Your task to perform on an android device: Open Reddit.com Image 0: 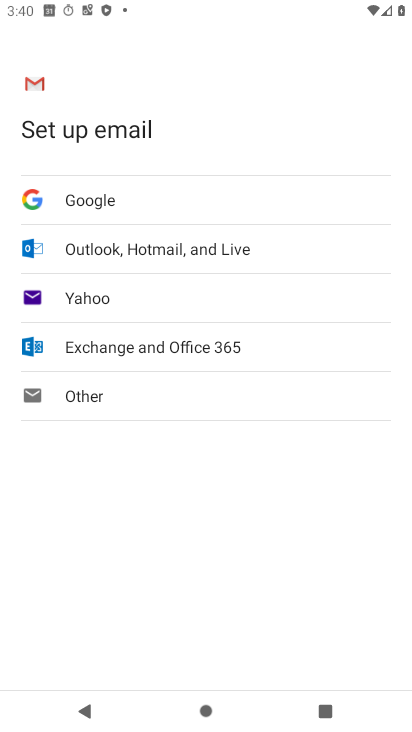
Step 0: press home button
Your task to perform on an android device: Open Reddit.com Image 1: 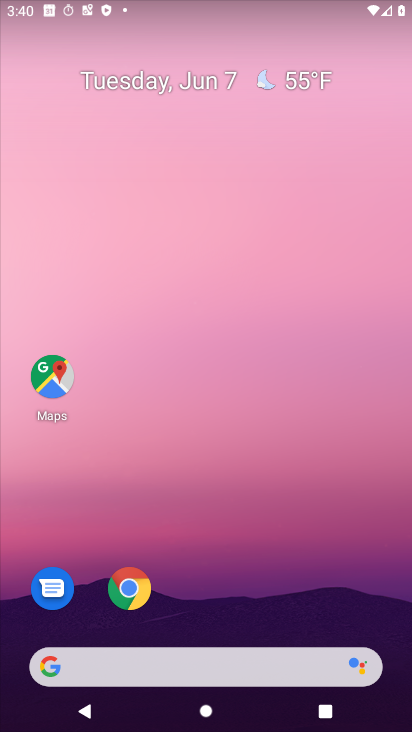
Step 1: click (58, 677)
Your task to perform on an android device: Open Reddit.com Image 2: 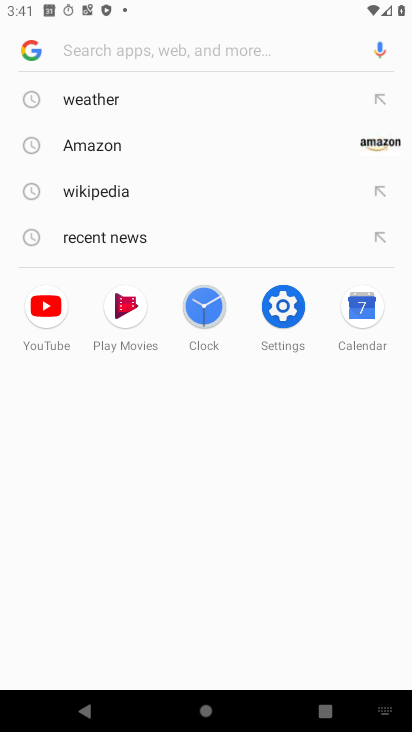
Step 2: type "Reddit.com"
Your task to perform on an android device: Open Reddit.com Image 3: 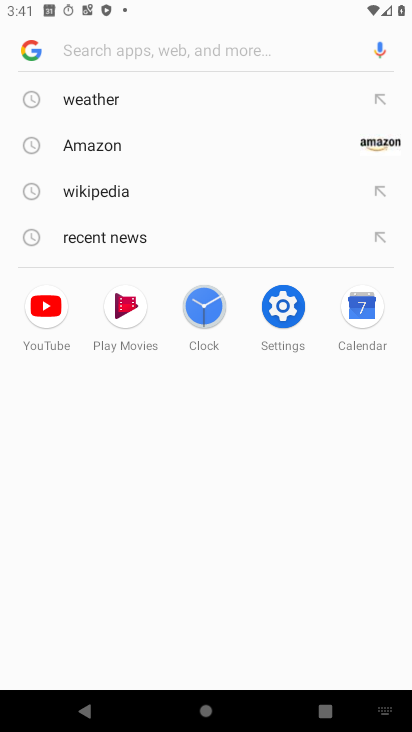
Step 3: click (160, 50)
Your task to perform on an android device: Open Reddit.com Image 4: 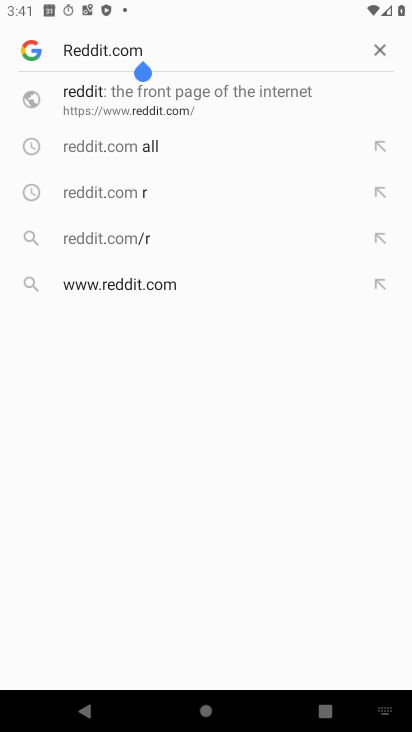
Step 4: click (93, 95)
Your task to perform on an android device: Open Reddit.com Image 5: 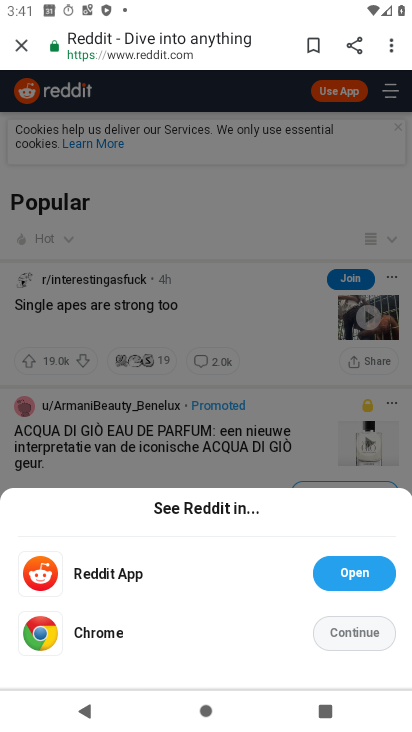
Step 5: task complete